Your task to perform on an android device: Search for Italian restaurants on Maps Image 0: 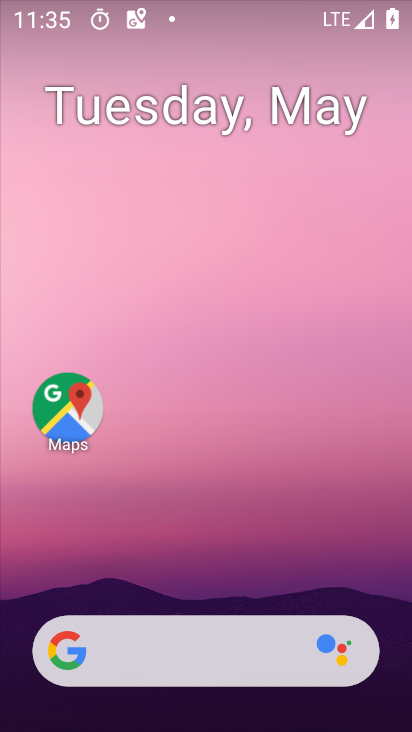
Step 0: click (64, 389)
Your task to perform on an android device: Search for Italian restaurants on Maps Image 1: 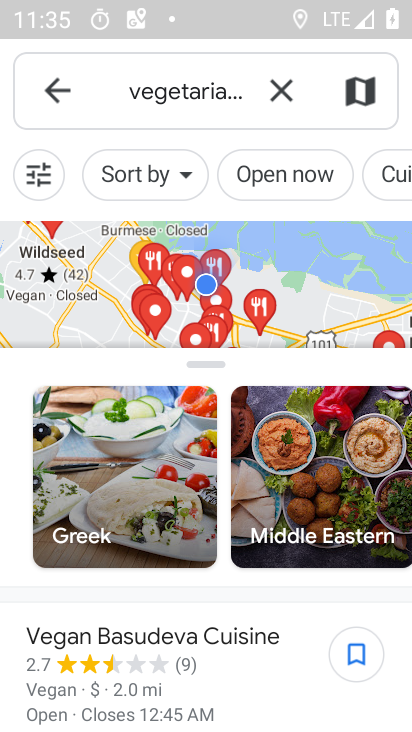
Step 1: click (290, 88)
Your task to perform on an android device: Search for Italian restaurants on Maps Image 2: 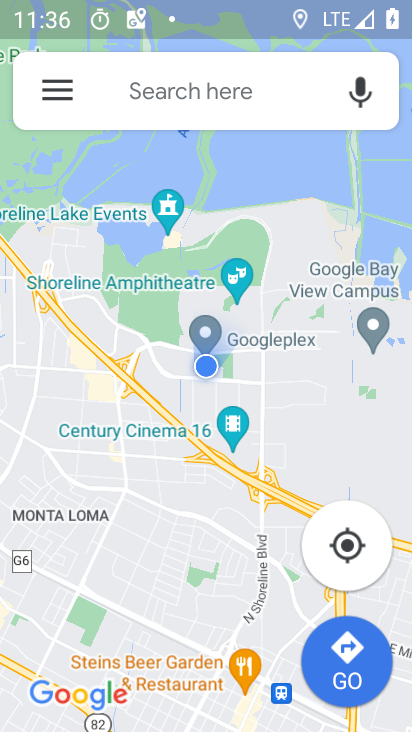
Step 2: click (238, 101)
Your task to perform on an android device: Search for Italian restaurants on Maps Image 3: 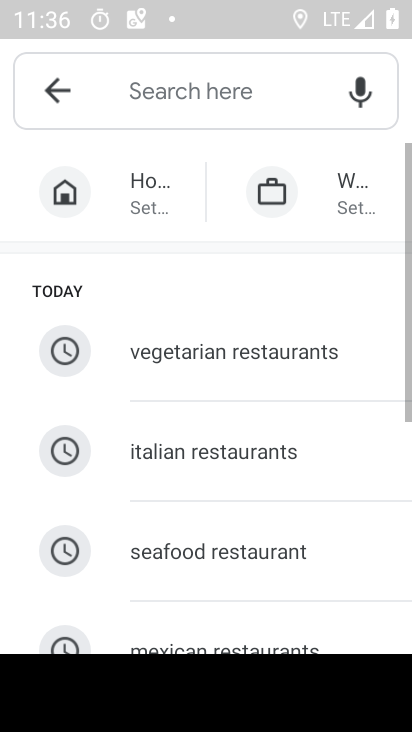
Step 3: click (287, 465)
Your task to perform on an android device: Search for Italian restaurants on Maps Image 4: 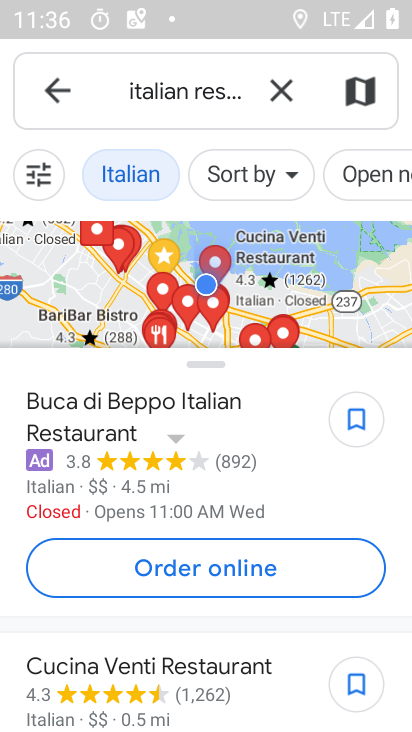
Step 4: task complete